Your task to perform on an android device: turn pop-ups on in chrome Image 0: 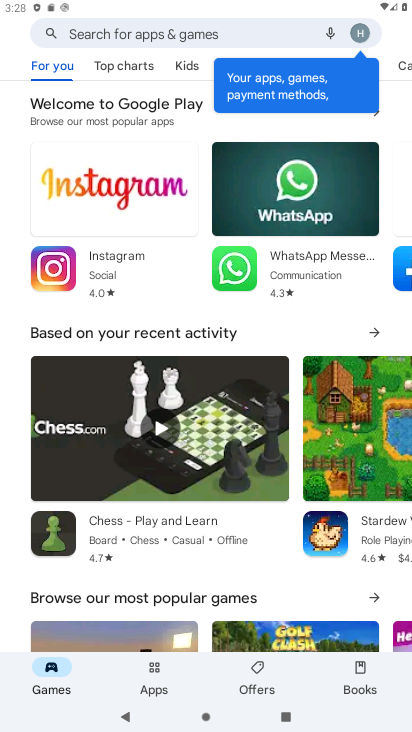
Step 0: press home button
Your task to perform on an android device: turn pop-ups on in chrome Image 1: 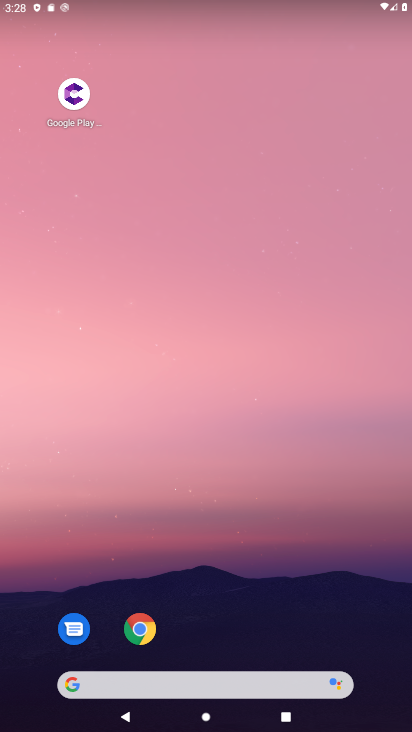
Step 1: drag from (253, 635) to (306, 123)
Your task to perform on an android device: turn pop-ups on in chrome Image 2: 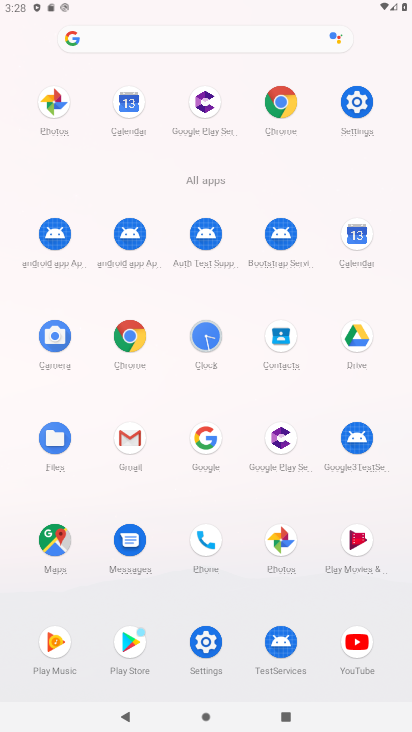
Step 2: click (278, 96)
Your task to perform on an android device: turn pop-ups on in chrome Image 3: 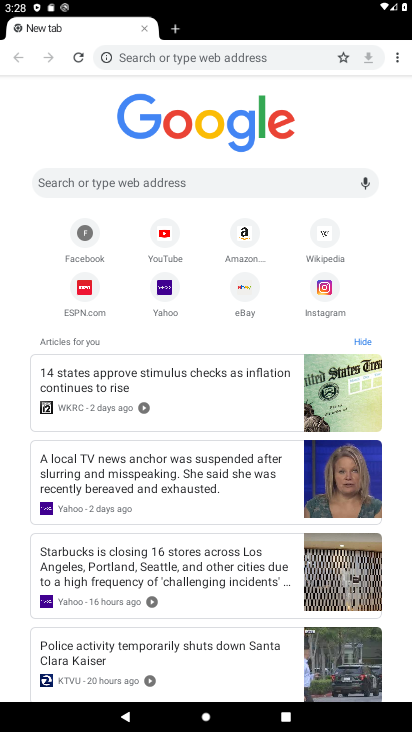
Step 3: drag from (399, 52) to (289, 260)
Your task to perform on an android device: turn pop-ups on in chrome Image 4: 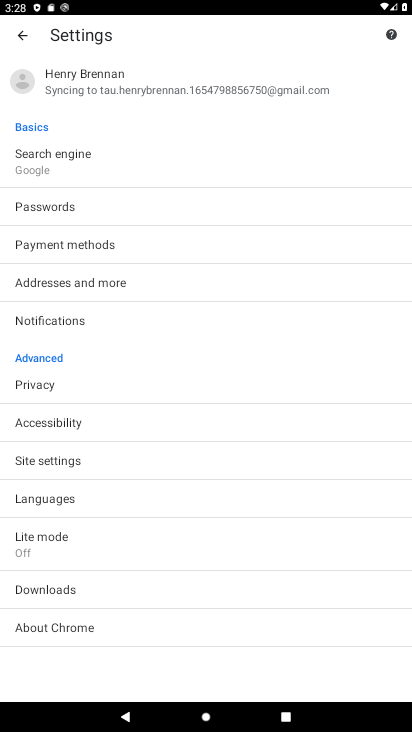
Step 4: click (50, 460)
Your task to perform on an android device: turn pop-ups on in chrome Image 5: 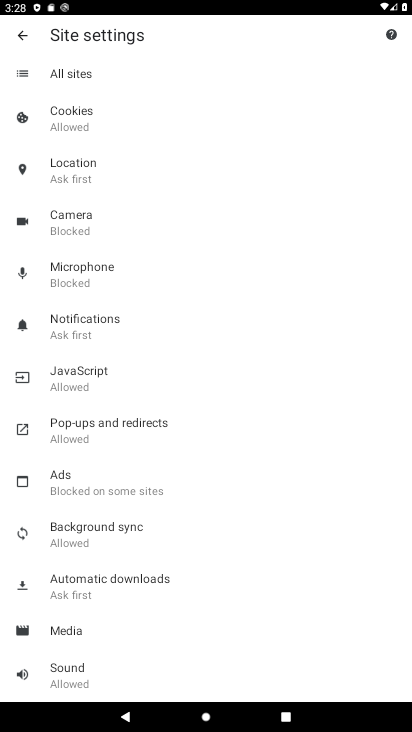
Step 5: click (97, 432)
Your task to perform on an android device: turn pop-ups on in chrome Image 6: 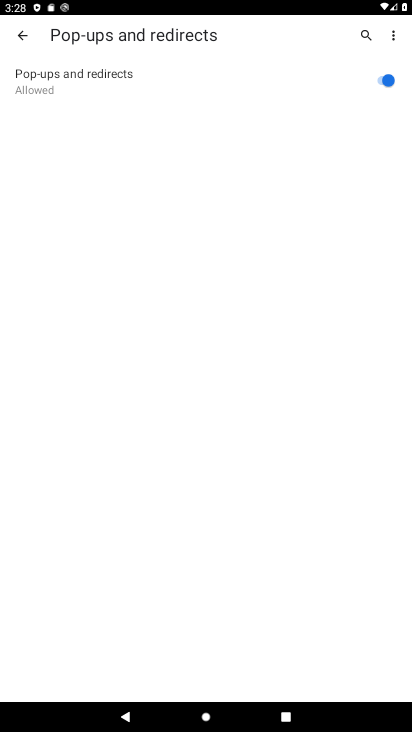
Step 6: task complete